Your task to perform on an android device: Check the news Image 0: 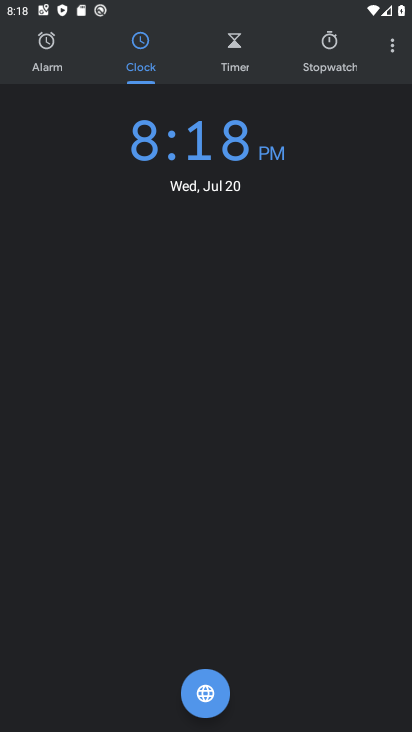
Step 0: press home button
Your task to perform on an android device: Check the news Image 1: 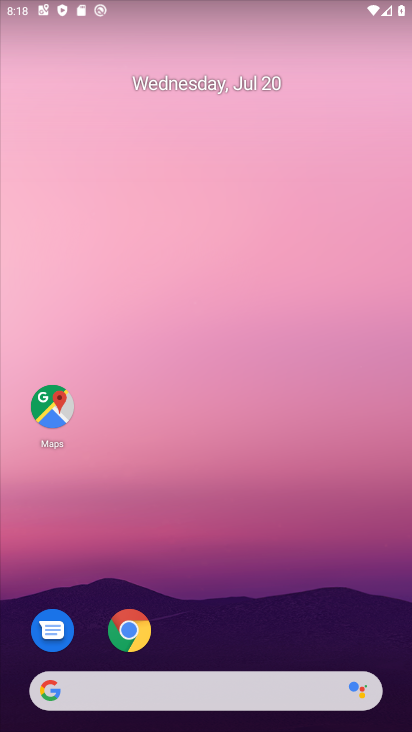
Step 1: task complete